Your task to perform on an android device: stop showing notifications on the lock screen Image 0: 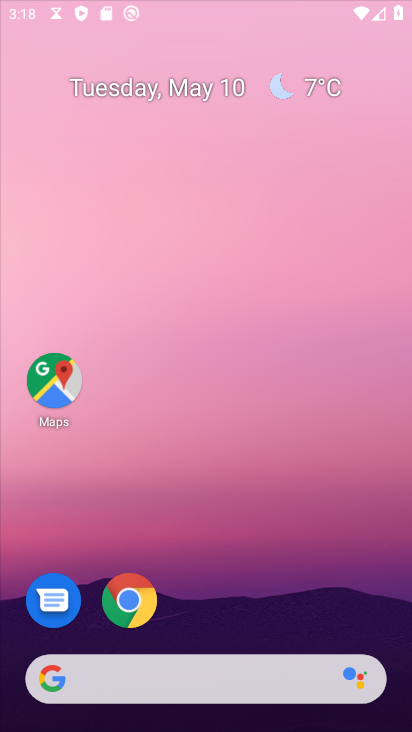
Step 0: press home button
Your task to perform on an android device: stop showing notifications on the lock screen Image 1: 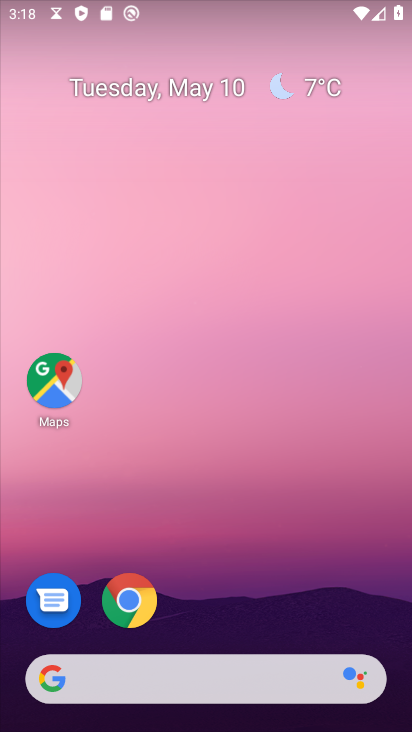
Step 1: task complete